Your task to perform on an android device: Go to wifi settings Image 0: 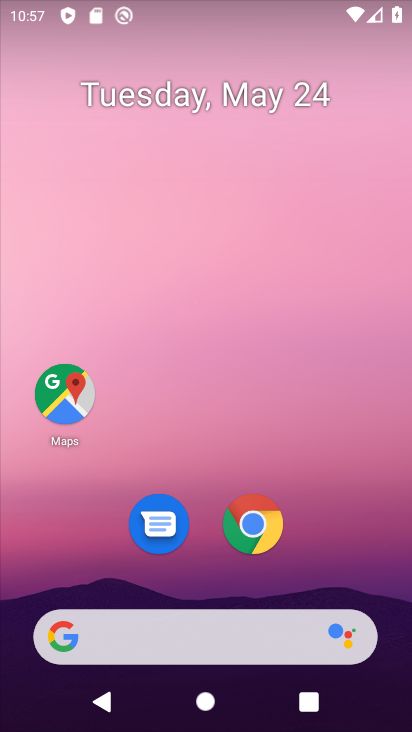
Step 0: drag from (267, 445) to (243, 0)
Your task to perform on an android device: Go to wifi settings Image 1: 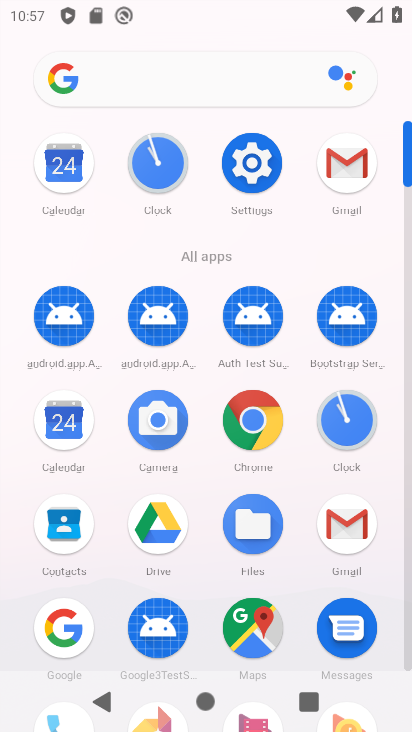
Step 1: click (245, 171)
Your task to perform on an android device: Go to wifi settings Image 2: 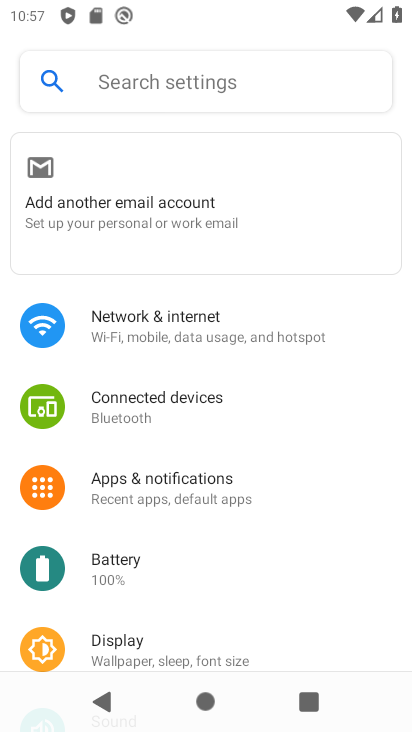
Step 2: click (222, 316)
Your task to perform on an android device: Go to wifi settings Image 3: 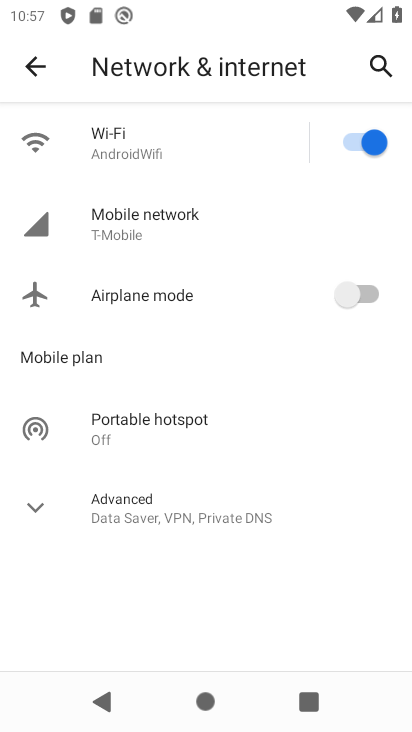
Step 3: click (125, 150)
Your task to perform on an android device: Go to wifi settings Image 4: 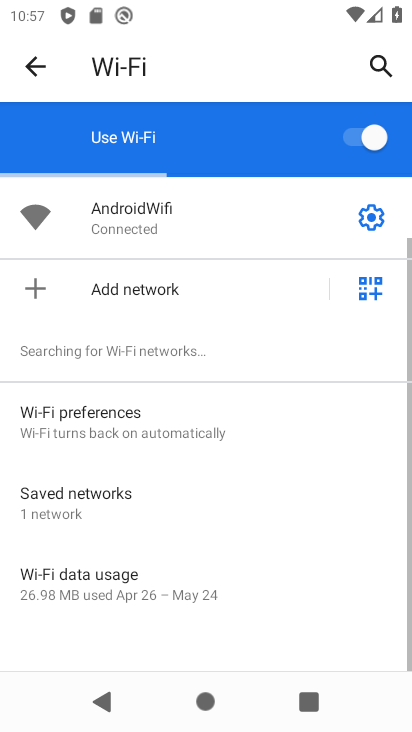
Step 4: task complete